Your task to perform on an android device: toggle notifications settings in the gmail app Image 0: 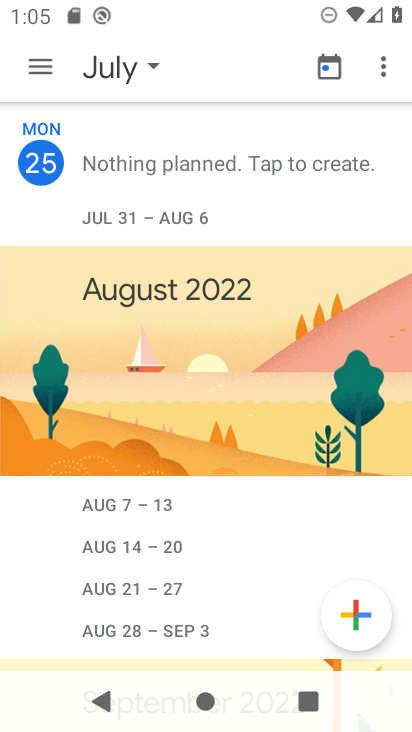
Step 0: press home button
Your task to perform on an android device: toggle notifications settings in the gmail app Image 1: 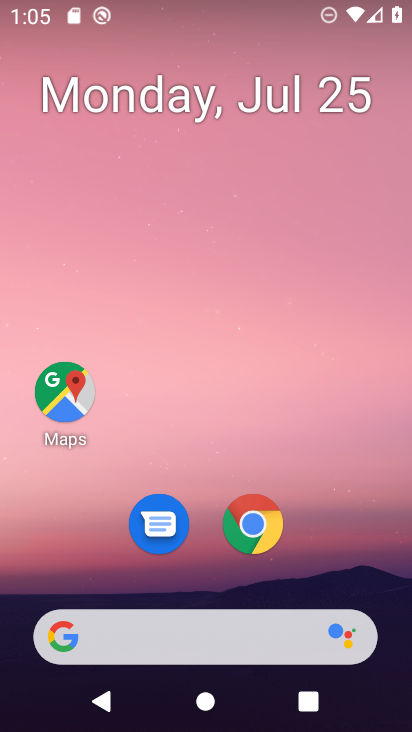
Step 1: drag from (198, 624) to (359, 97)
Your task to perform on an android device: toggle notifications settings in the gmail app Image 2: 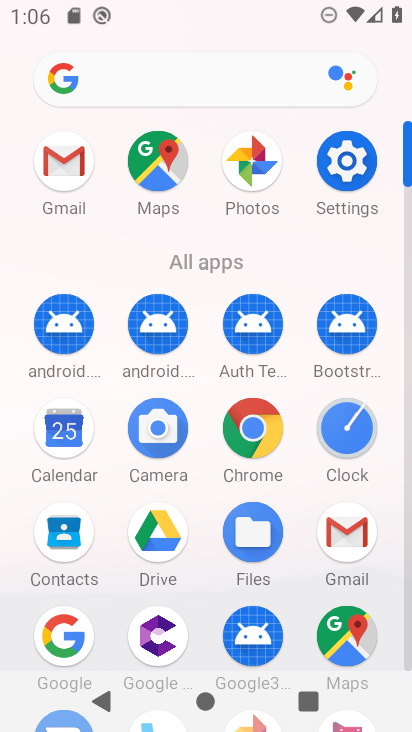
Step 2: click (55, 171)
Your task to perform on an android device: toggle notifications settings in the gmail app Image 3: 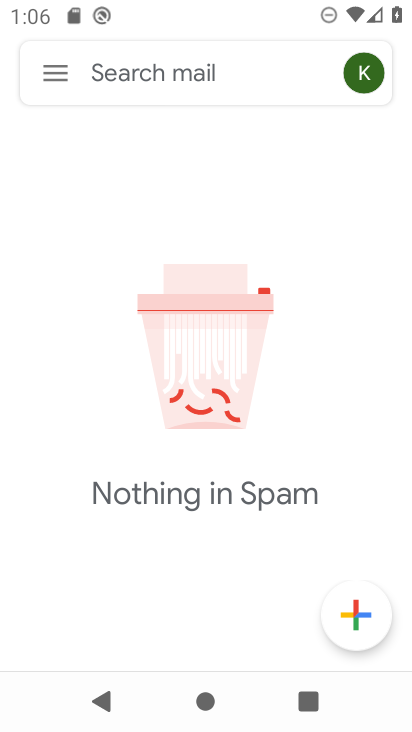
Step 3: click (46, 75)
Your task to perform on an android device: toggle notifications settings in the gmail app Image 4: 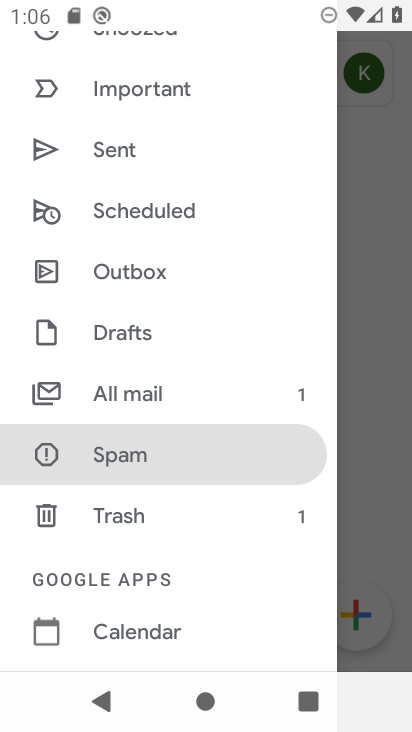
Step 4: drag from (228, 594) to (225, 149)
Your task to perform on an android device: toggle notifications settings in the gmail app Image 5: 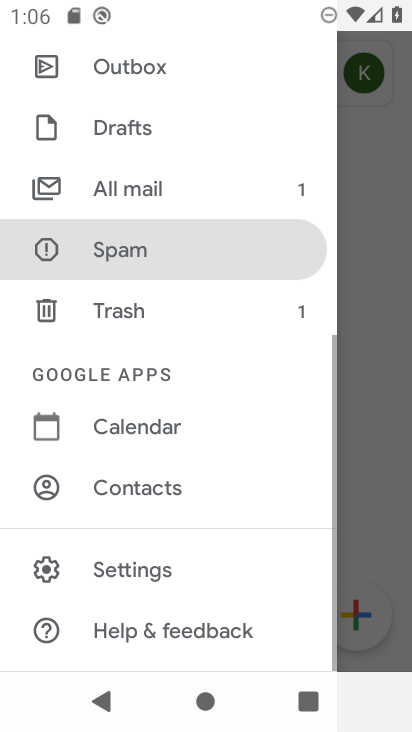
Step 5: click (125, 572)
Your task to perform on an android device: toggle notifications settings in the gmail app Image 6: 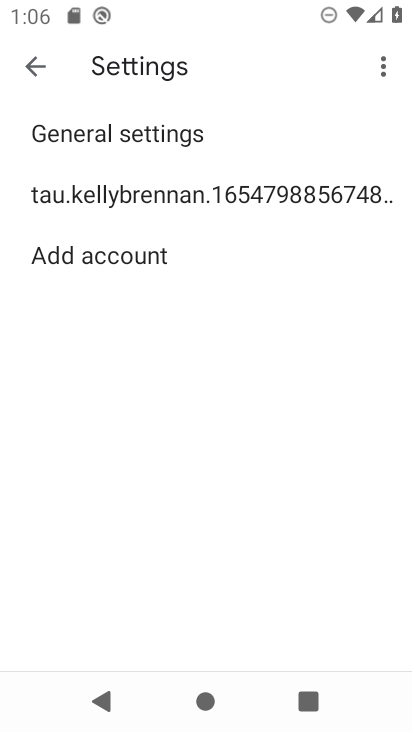
Step 6: click (206, 189)
Your task to perform on an android device: toggle notifications settings in the gmail app Image 7: 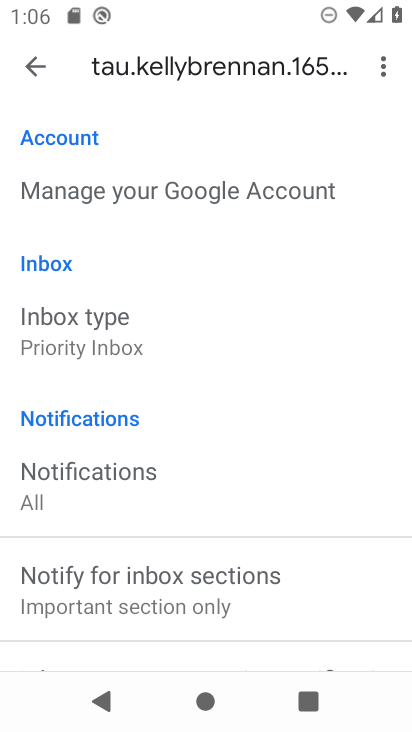
Step 7: click (78, 492)
Your task to perform on an android device: toggle notifications settings in the gmail app Image 8: 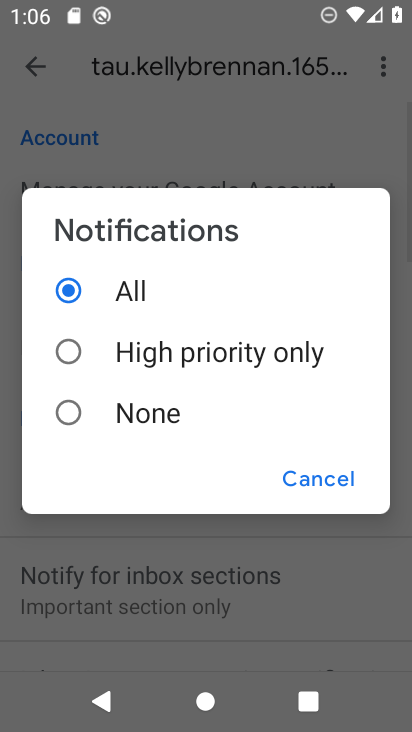
Step 8: click (66, 411)
Your task to perform on an android device: toggle notifications settings in the gmail app Image 9: 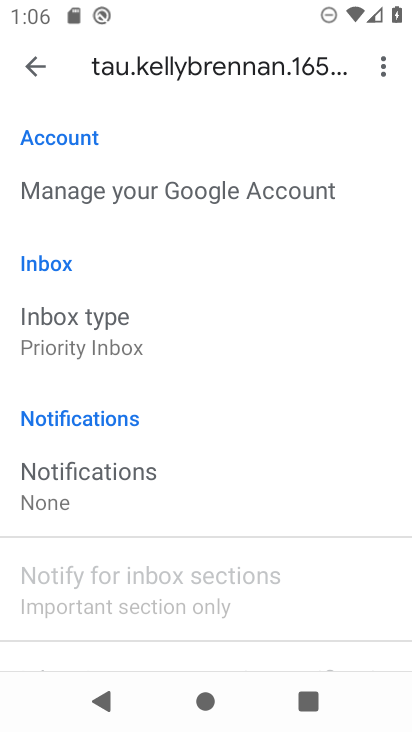
Step 9: task complete